Your task to perform on an android device: open app "Google Docs" Image 0: 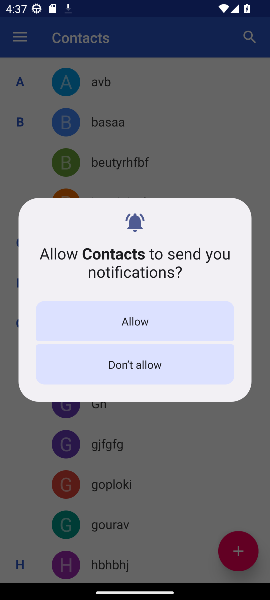
Step 0: press home button
Your task to perform on an android device: open app "Google Docs" Image 1: 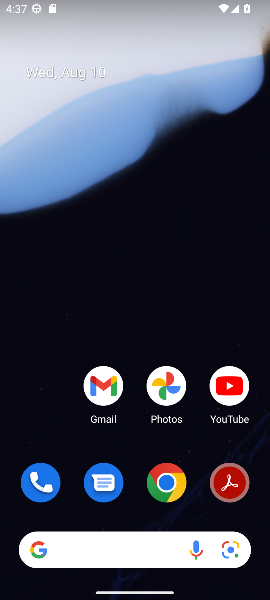
Step 1: drag from (150, 512) to (146, 72)
Your task to perform on an android device: open app "Google Docs" Image 2: 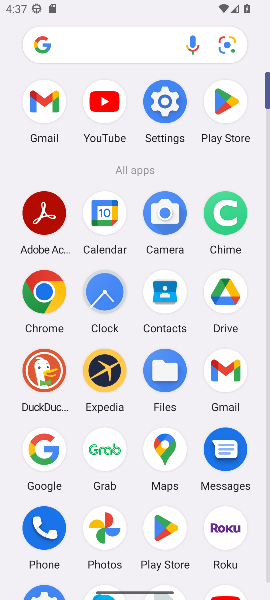
Step 2: click (221, 97)
Your task to perform on an android device: open app "Google Docs" Image 3: 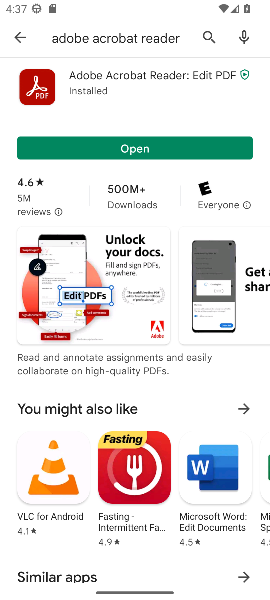
Step 3: click (209, 35)
Your task to perform on an android device: open app "Google Docs" Image 4: 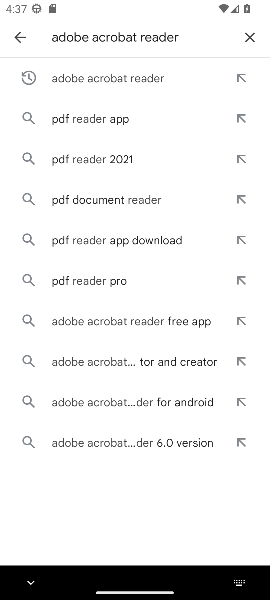
Step 4: click (249, 34)
Your task to perform on an android device: open app "Google Docs" Image 5: 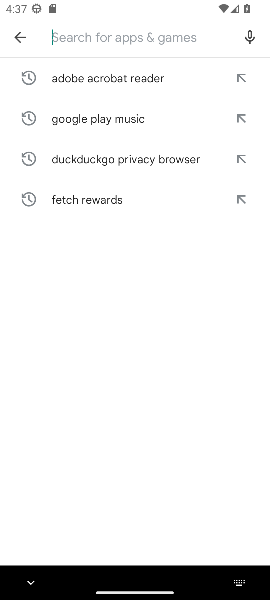
Step 5: type "Google Docs"
Your task to perform on an android device: open app "Google Docs" Image 6: 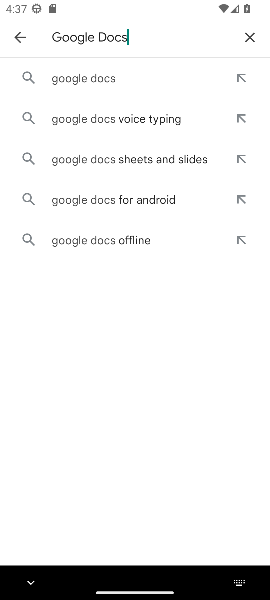
Step 6: click (78, 75)
Your task to perform on an android device: open app "Google Docs" Image 7: 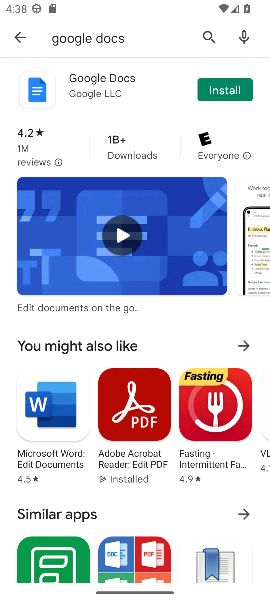
Step 7: task complete